Your task to perform on an android device: open app "Flipkart Online Shopping App" (install if not already installed) Image 0: 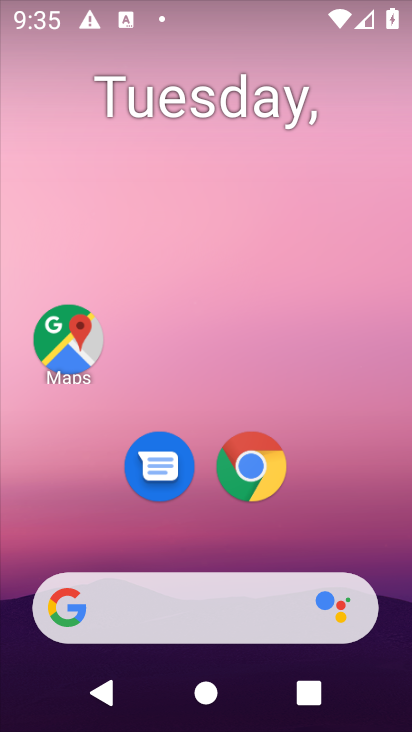
Step 0: drag from (179, 570) to (264, 16)
Your task to perform on an android device: open app "Flipkart Online Shopping App" (install if not already installed) Image 1: 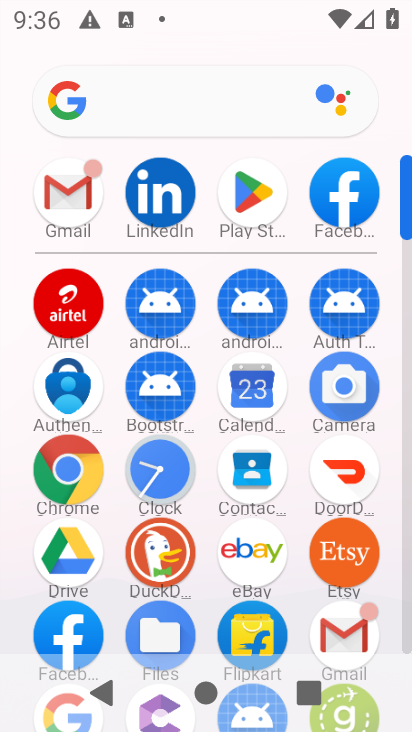
Step 1: click (245, 206)
Your task to perform on an android device: open app "Flipkart Online Shopping App" (install if not already installed) Image 2: 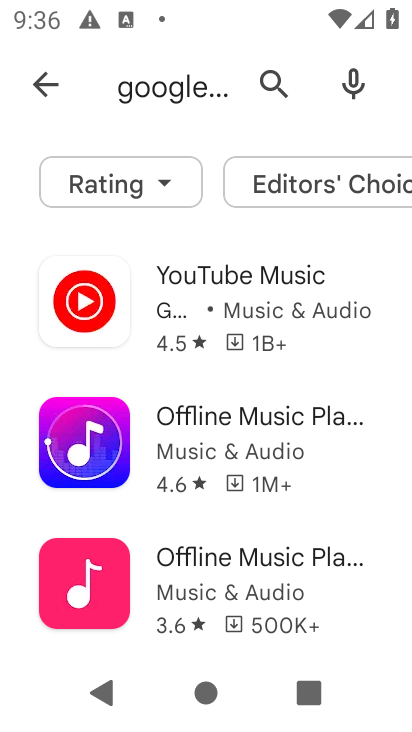
Step 2: click (272, 70)
Your task to perform on an android device: open app "Flipkart Online Shopping App" (install if not already installed) Image 3: 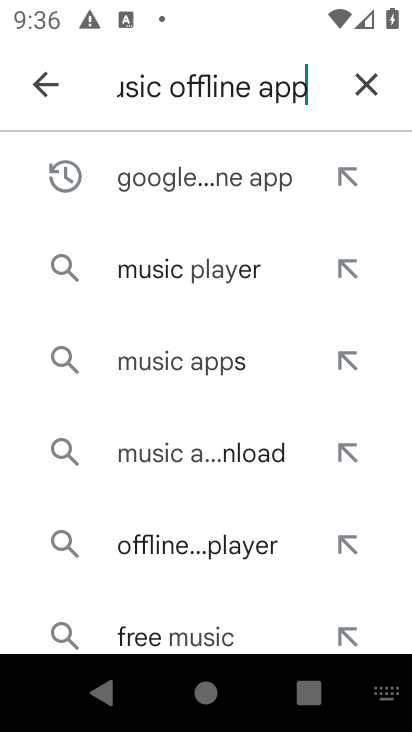
Step 3: click (367, 84)
Your task to perform on an android device: open app "Flipkart Online Shopping App" (install if not already installed) Image 4: 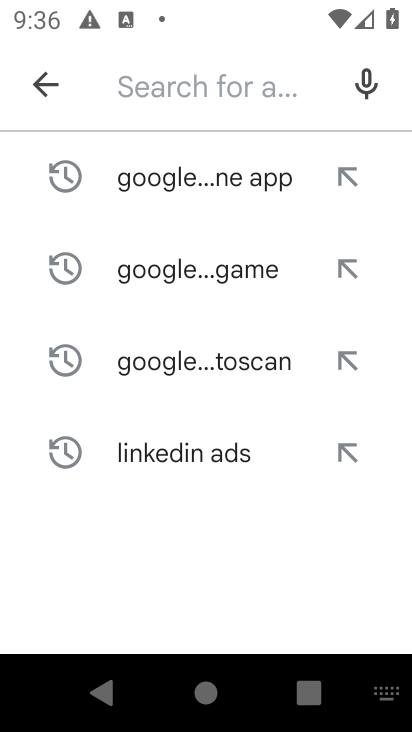
Step 4: type "flipkart online shopping"
Your task to perform on an android device: open app "Flipkart Online Shopping App" (install if not already installed) Image 5: 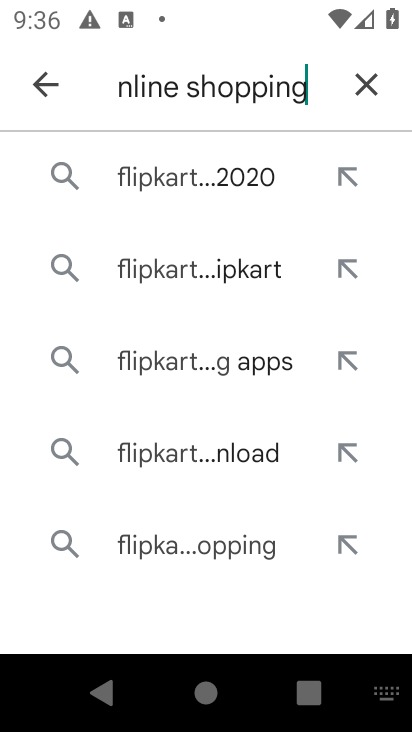
Step 5: click (176, 164)
Your task to perform on an android device: open app "Flipkart Online Shopping App" (install if not already installed) Image 6: 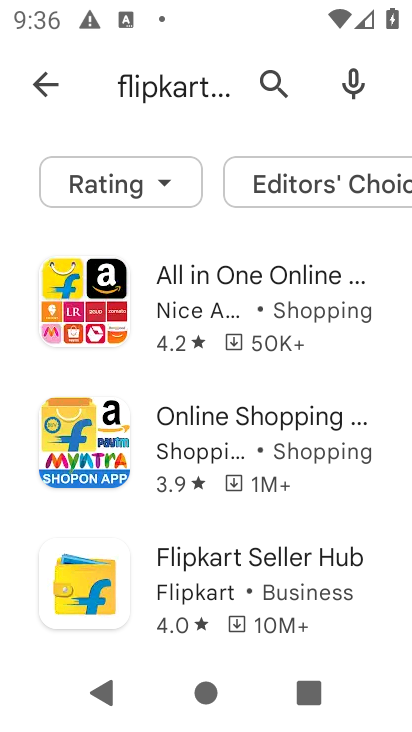
Step 6: drag from (221, 549) to (253, 108)
Your task to perform on an android device: open app "Flipkart Online Shopping App" (install if not already installed) Image 7: 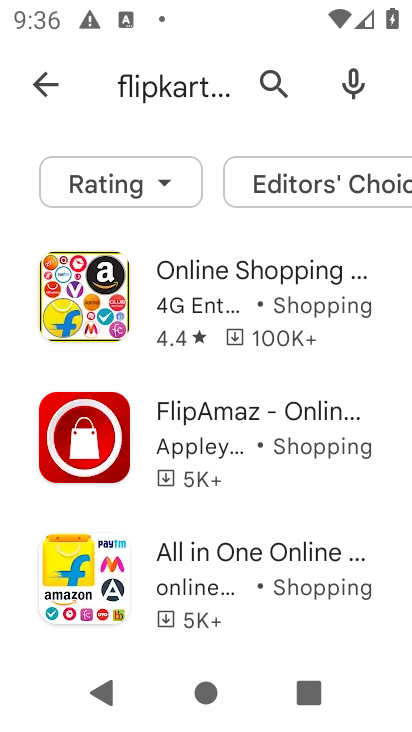
Step 7: drag from (221, 370) to (192, 609)
Your task to perform on an android device: open app "Flipkart Online Shopping App" (install if not already installed) Image 8: 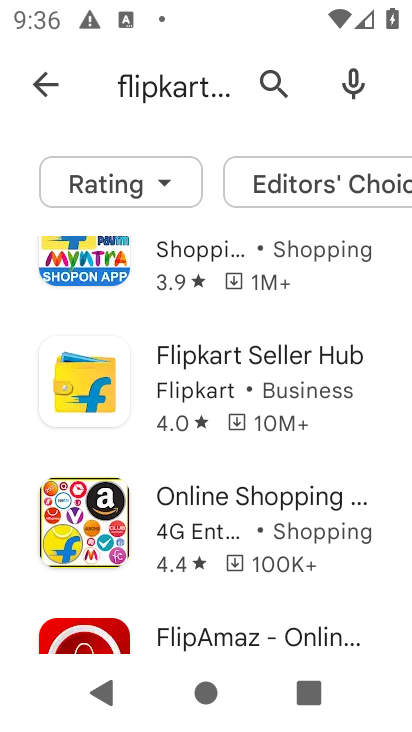
Step 8: click (218, 373)
Your task to perform on an android device: open app "Flipkart Online Shopping App" (install if not already installed) Image 9: 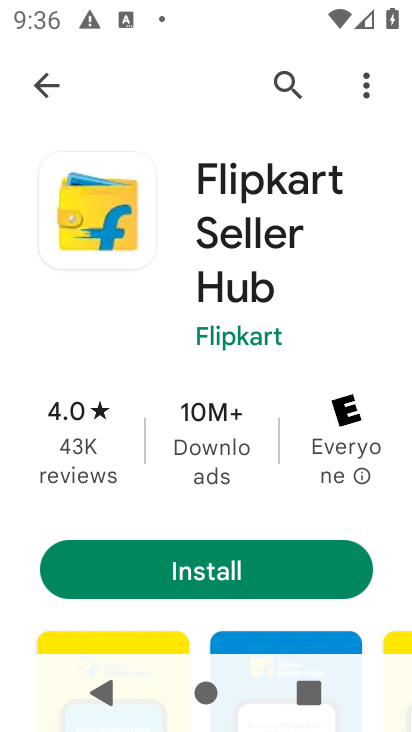
Step 9: task complete